Your task to perform on an android device: turn off picture-in-picture Image 0: 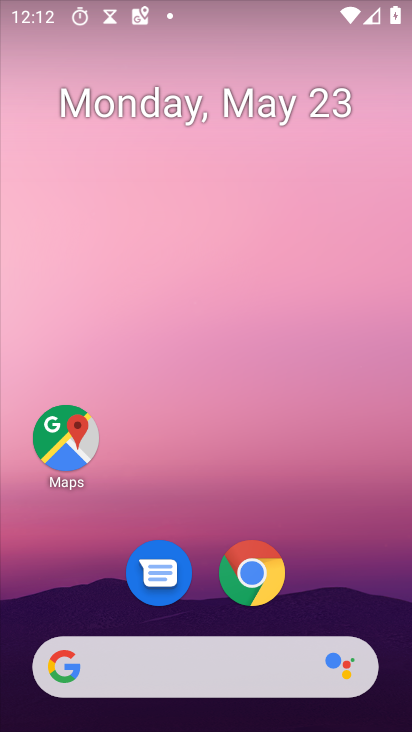
Step 0: press home button
Your task to perform on an android device: turn off picture-in-picture Image 1: 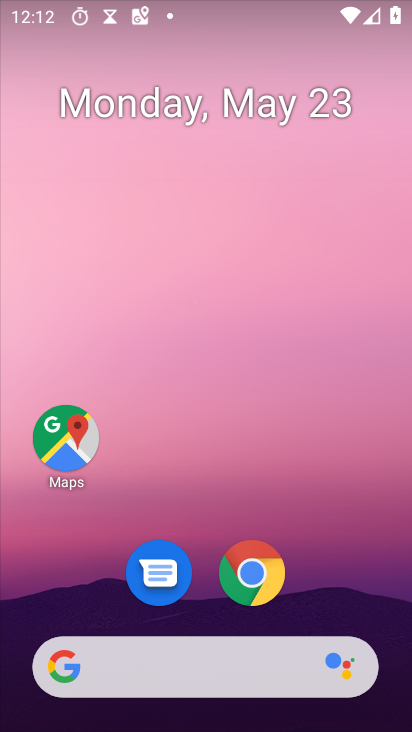
Step 1: click (254, 562)
Your task to perform on an android device: turn off picture-in-picture Image 2: 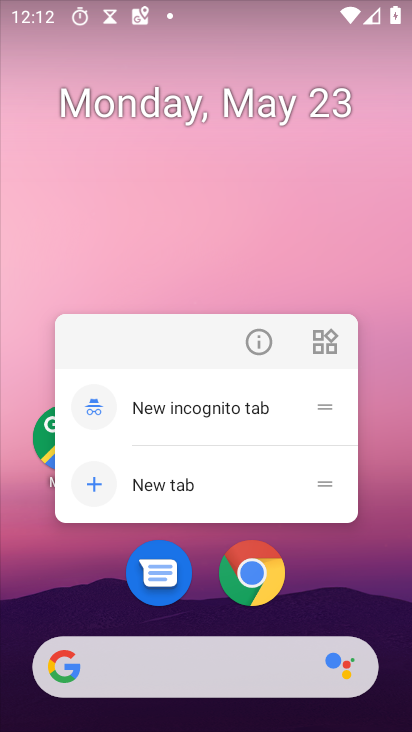
Step 2: click (254, 346)
Your task to perform on an android device: turn off picture-in-picture Image 3: 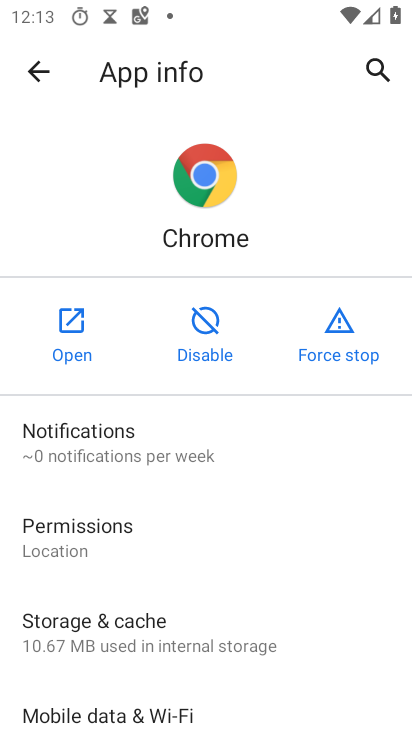
Step 3: drag from (216, 651) to (346, 186)
Your task to perform on an android device: turn off picture-in-picture Image 4: 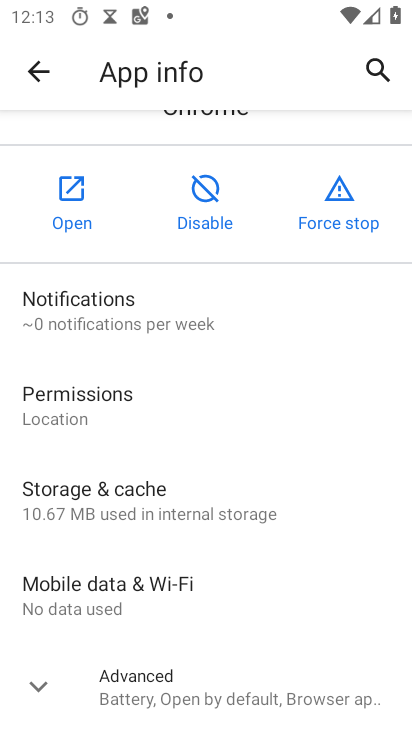
Step 4: click (118, 683)
Your task to perform on an android device: turn off picture-in-picture Image 5: 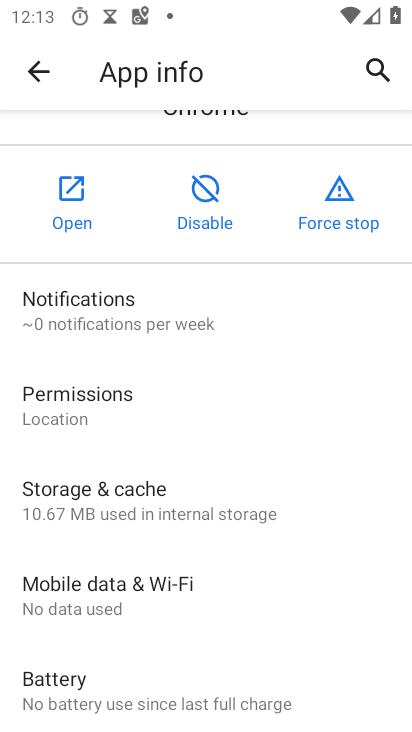
Step 5: drag from (230, 524) to (368, 56)
Your task to perform on an android device: turn off picture-in-picture Image 6: 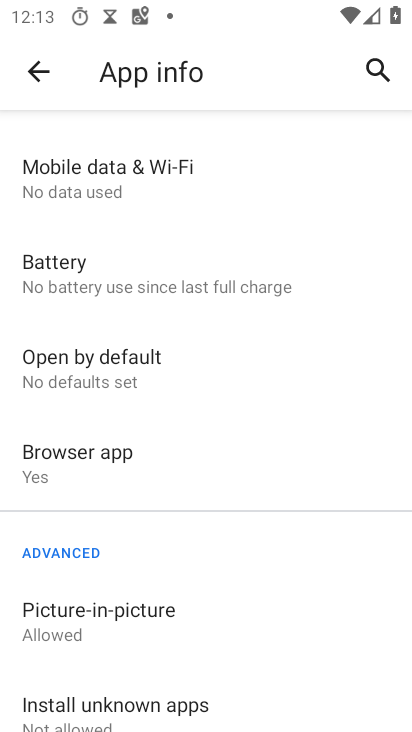
Step 6: click (91, 618)
Your task to perform on an android device: turn off picture-in-picture Image 7: 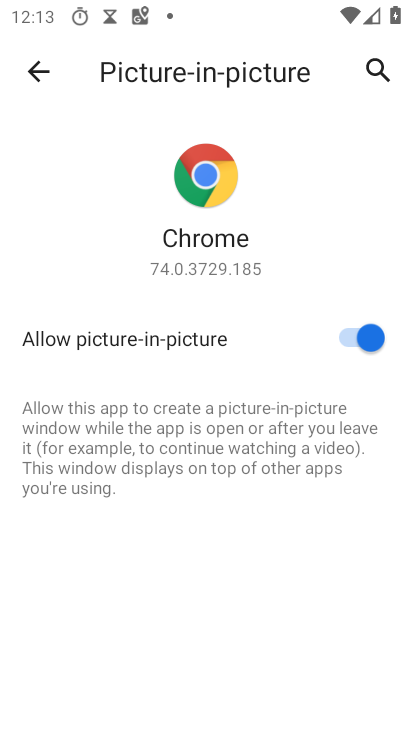
Step 7: click (345, 337)
Your task to perform on an android device: turn off picture-in-picture Image 8: 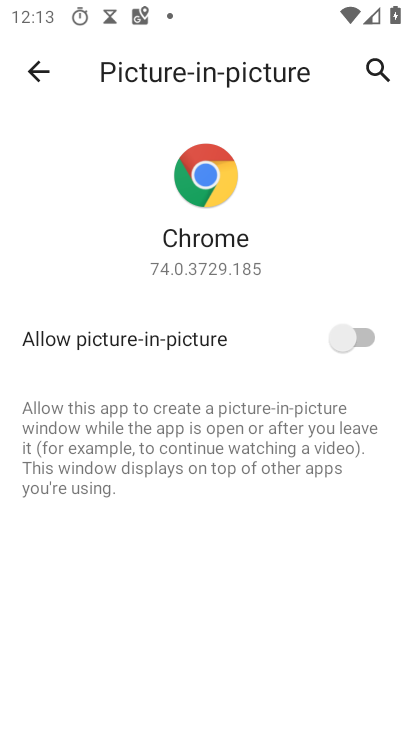
Step 8: task complete